Your task to perform on an android device: Search for pizza restaurants on Maps Image 0: 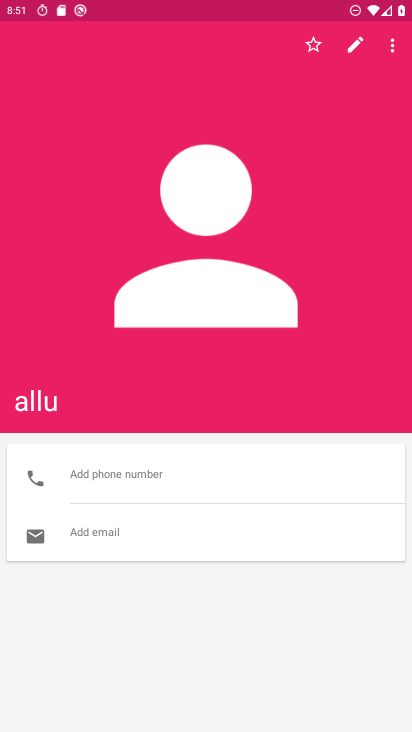
Step 0: press home button
Your task to perform on an android device: Search for pizza restaurants on Maps Image 1: 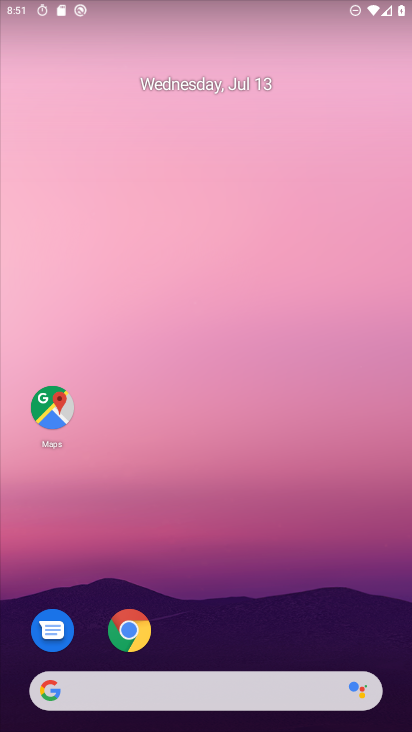
Step 1: drag from (386, 672) to (191, 93)
Your task to perform on an android device: Search for pizza restaurants on Maps Image 2: 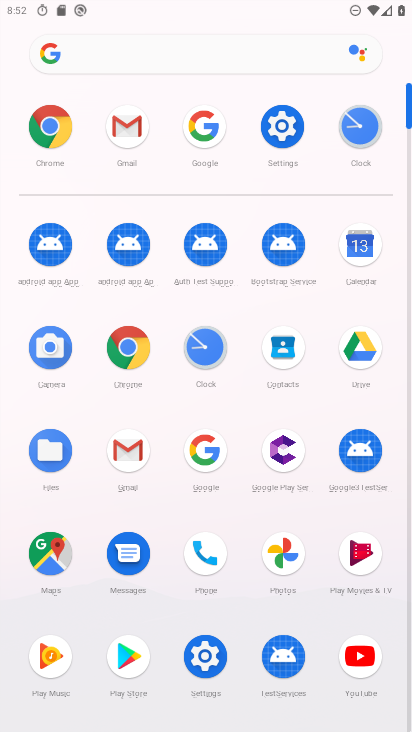
Step 2: click (55, 551)
Your task to perform on an android device: Search for pizza restaurants on Maps Image 3: 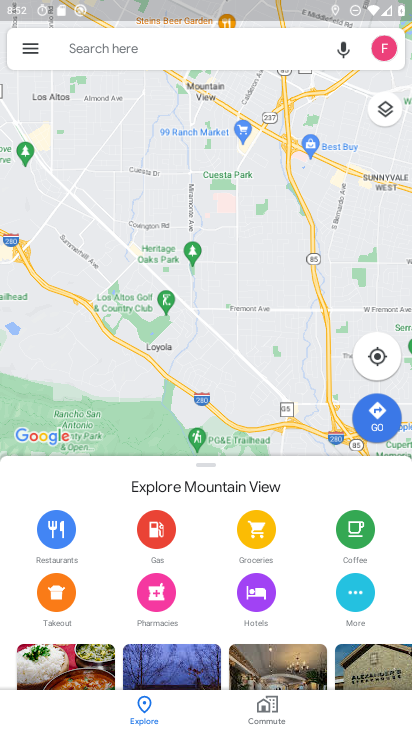
Step 3: click (128, 58)
Your task to perform on an android device: Search for pizza restaurants on Maps Image 4: 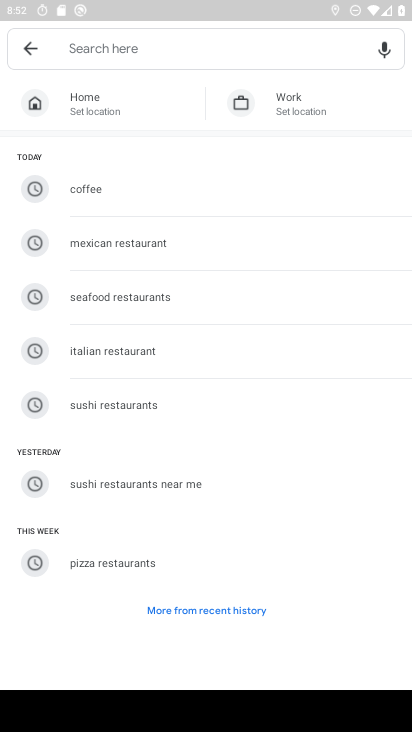
Step 4: click (101, 565)
Your task to perform on an android device: Search for pizza restaurants on Maps Image 5: 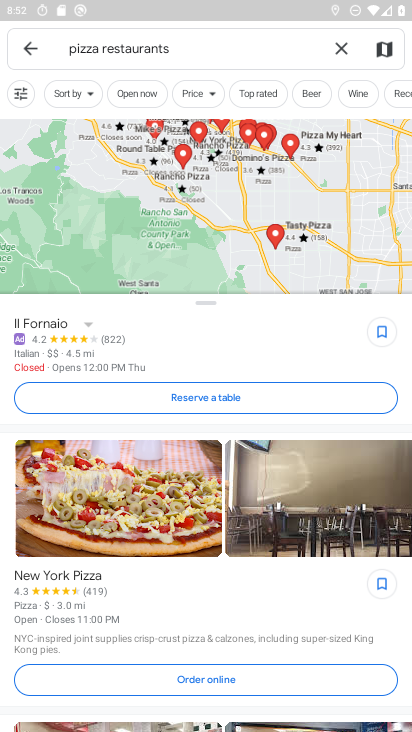
Step 5: task complete